Your task to perform on an android device: install app "The Home Depot" Image 0: 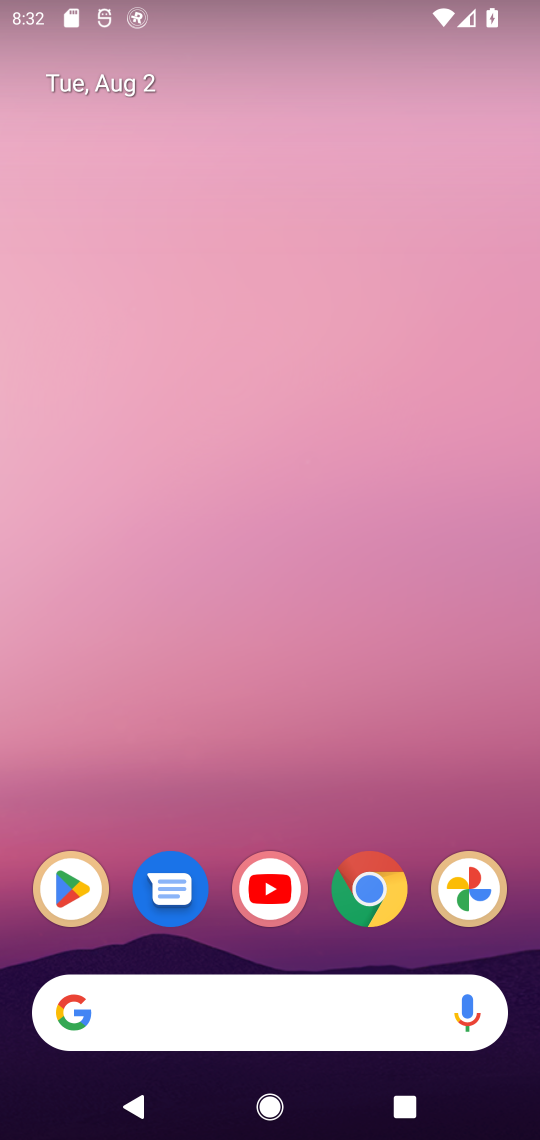
Step 0: press home button
Your task to perform on an android device: install app "The Home Depot" Image 1: 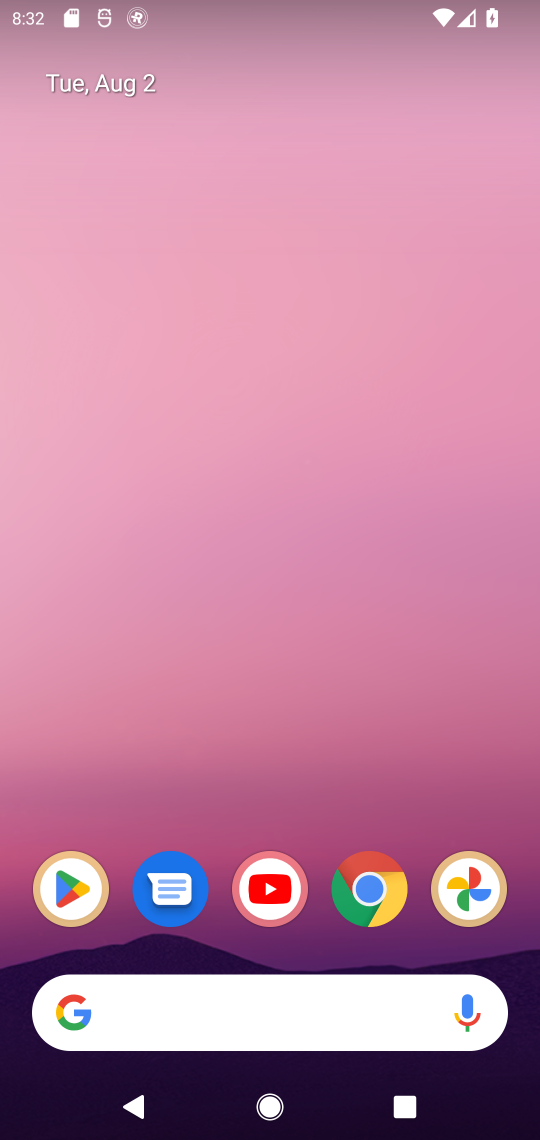
Step 1: click (66, 882)
Your task to perform on an android device: install app "The Home Depot" Image 2: 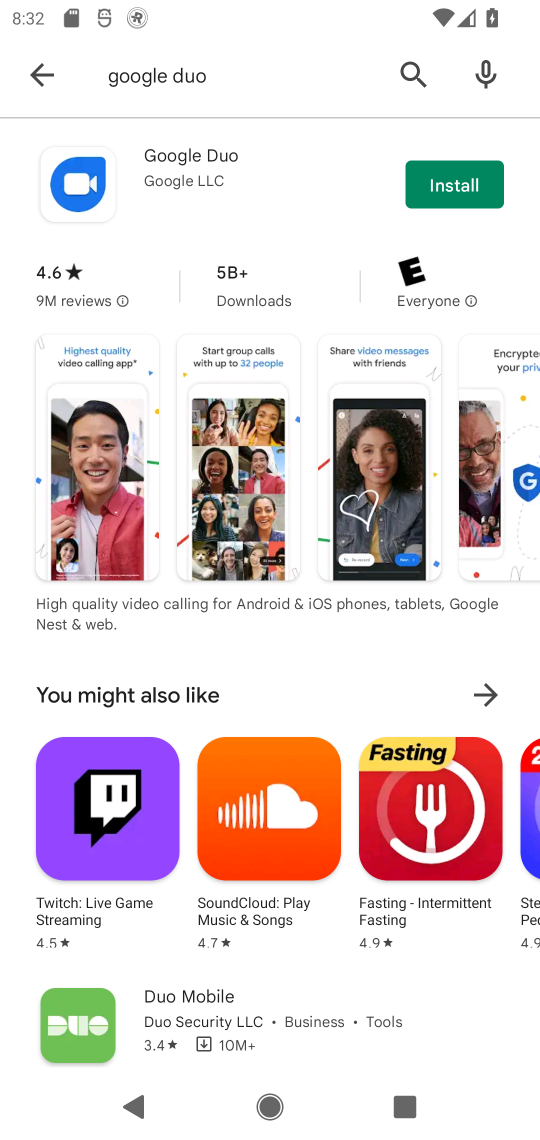
Step 2: click (401, 78)
Your task to perform on an android device: install app "The Home Depot" Image 3: 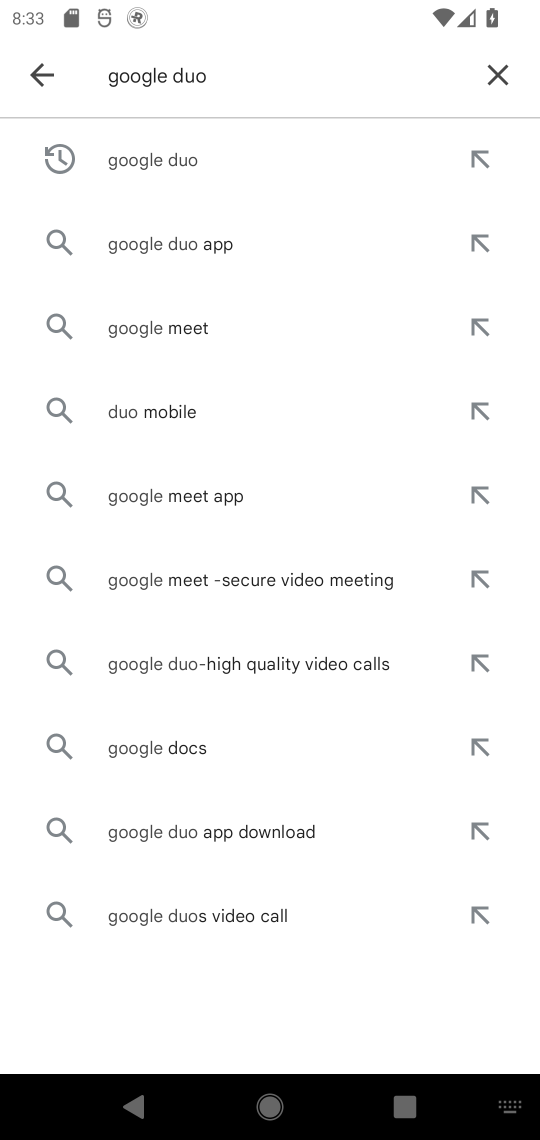
Step 3: click (508, 78)
Your task to perform on an android device: install app "The Home Depot" Image 4: 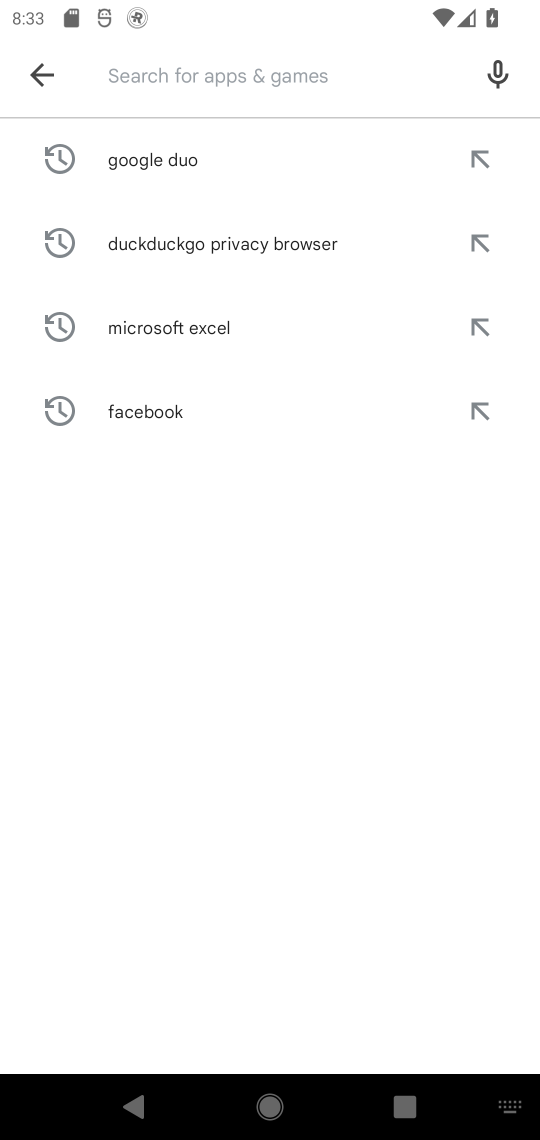
Step 4: type "The Home Depot"
Your task to perform on an android device: install app "The Home Depot" Image 5: 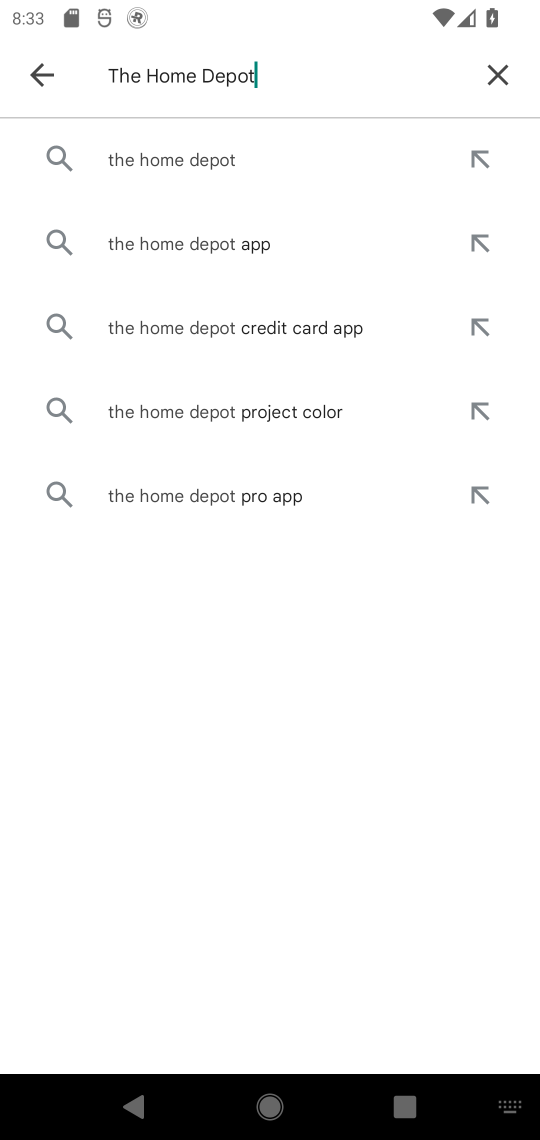
Step 5: click (155, 153)
Your task to perform on an android device: install app "The Home Depot" Image 6: 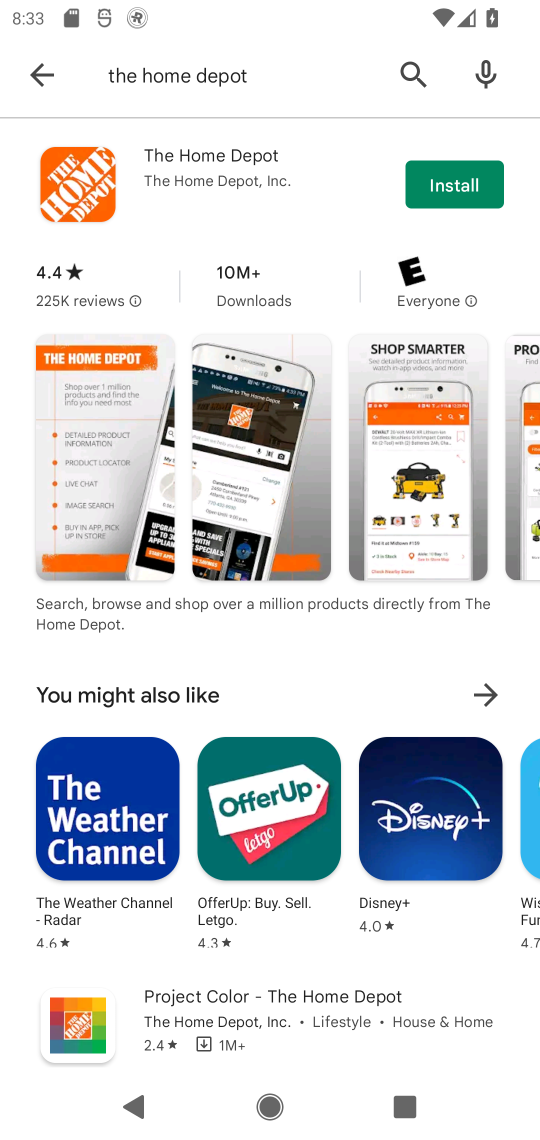
Step 6: click (450, 186)
Your task to perform on an android device: install app "The Home Depot" Image 7: 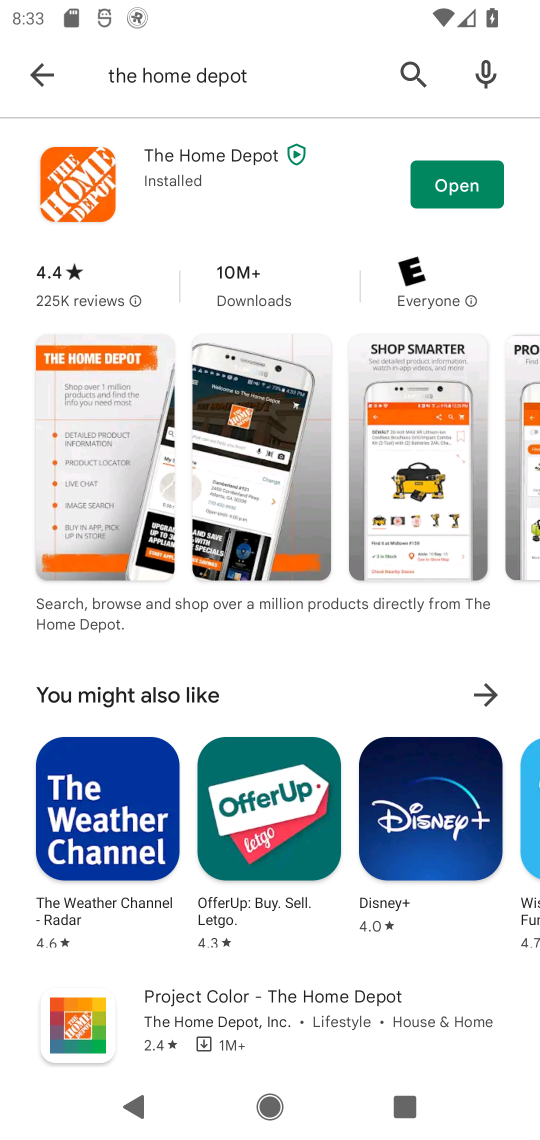
Step 7: task complete